Your task to perform on an android device: turn notification dots off Image 0: 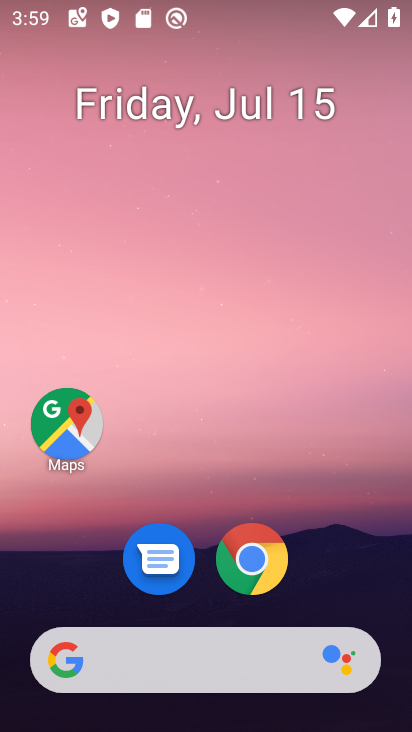
Step 0: drag from (94, 595) to (201, 29)
Your task to perform on an android device: turn notification dots off Image 1: 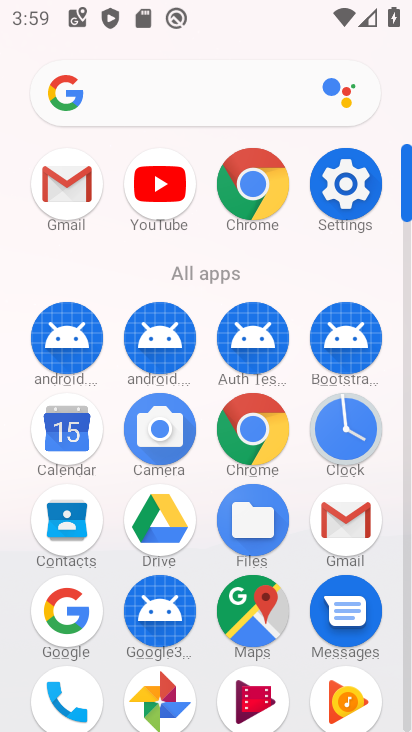
Step 1: click (362, 175)
Your task to perform on an android device: turn notification dots off Image 2: 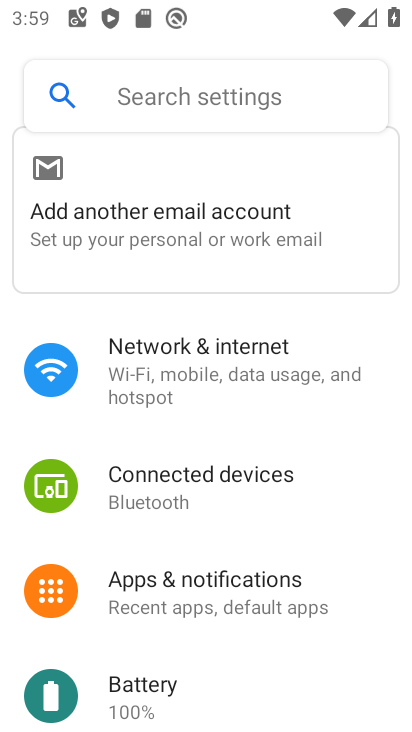
Step 2: click (181, 613)
Your task to perform on an android device: turn notification dots off Image 3: 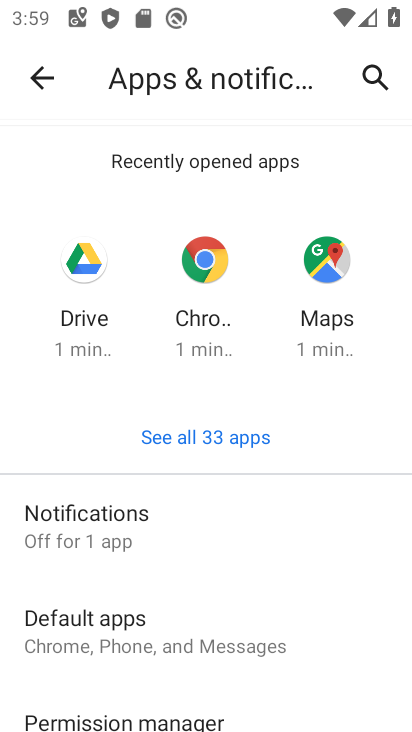
Step 3: click (122, 516)
Your task to perform on an android device: turn notification dots off Image 4: 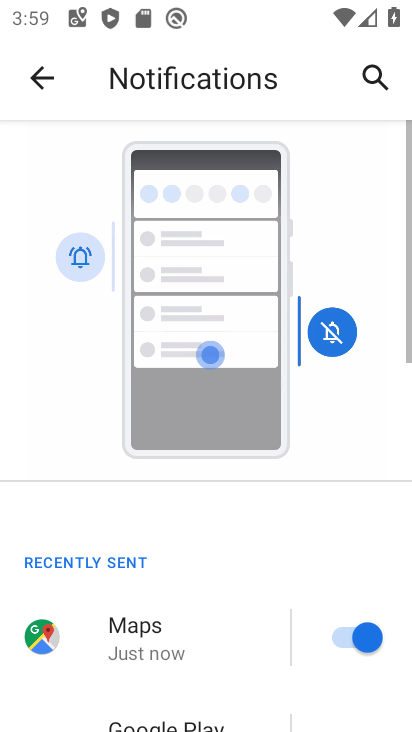
Step 4: drag from (115, 663) to (298, 62)
Your task to perform on an android device: turn notification dots off Image 5: 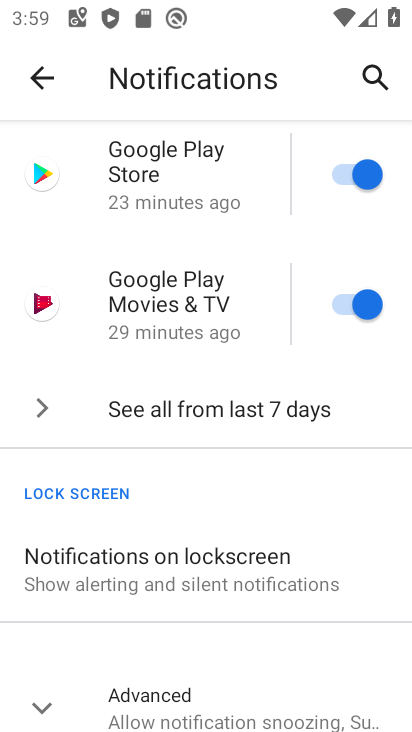
Step 5: drag from (181, 588) to (235, 140)
Your task to perform on an android device: turn notification dots off Image 6: 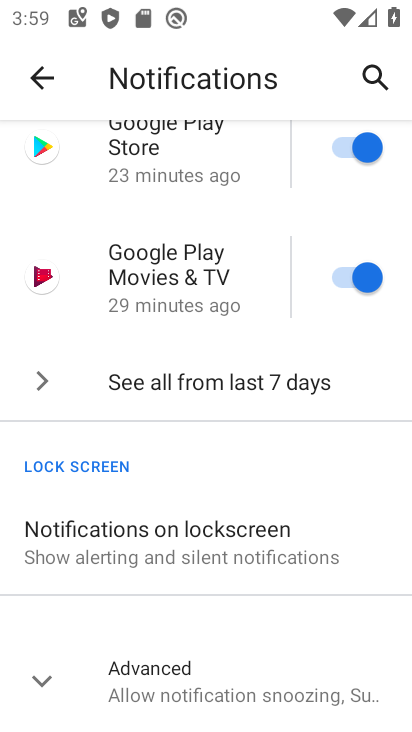
Step 6: click (176, 679)
Your task to perform on an android device: turn notification dots off Image 7: 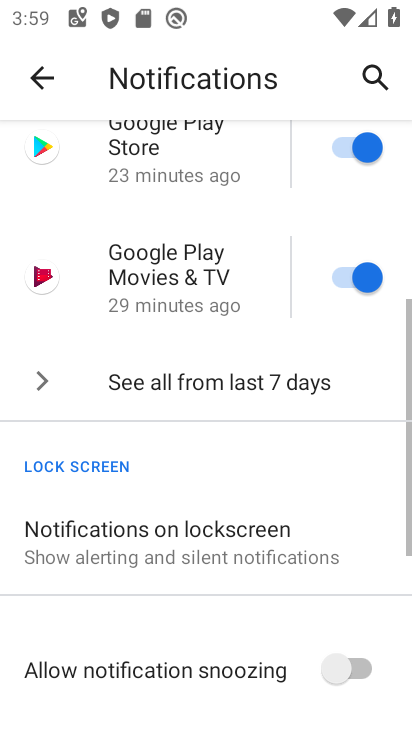
Step 7: drag from (185, 666) to (254, 211)
Your task to perform on an android device: turn notification dots off Image 8: 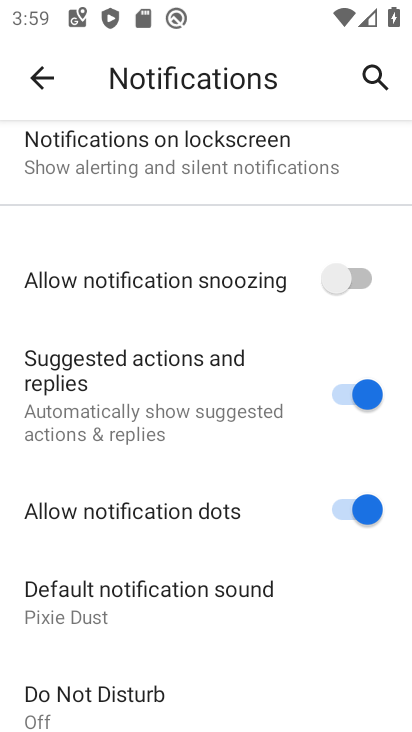
Step 8: click (355, 516)
Your task to perform on an android device: turn notification dots off Image 9: 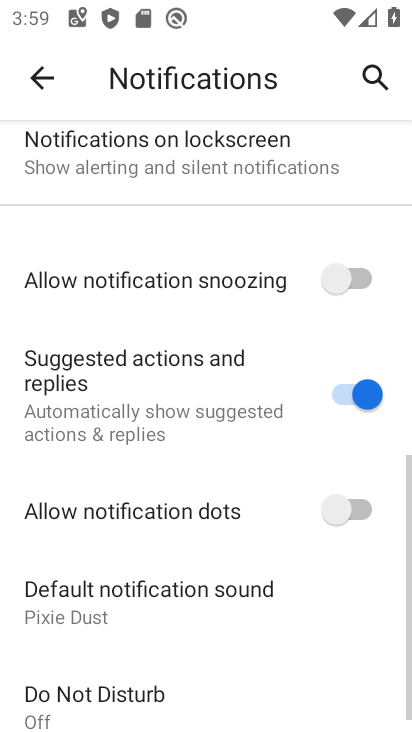
Step 9: task complete